Your task to perform on an android device: Add logitech g903 to the cart on costco, then select checkout. Image 0: 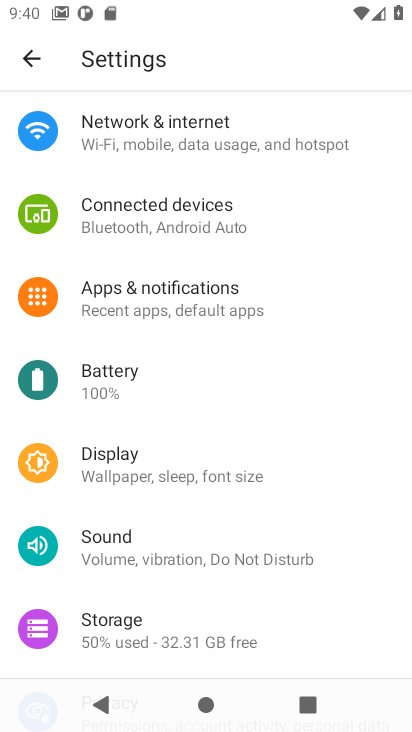
Step 0: press home button
Your task to perform on an android device: Add logitech g903 to the cart on costco, then select checkout. Image 1: 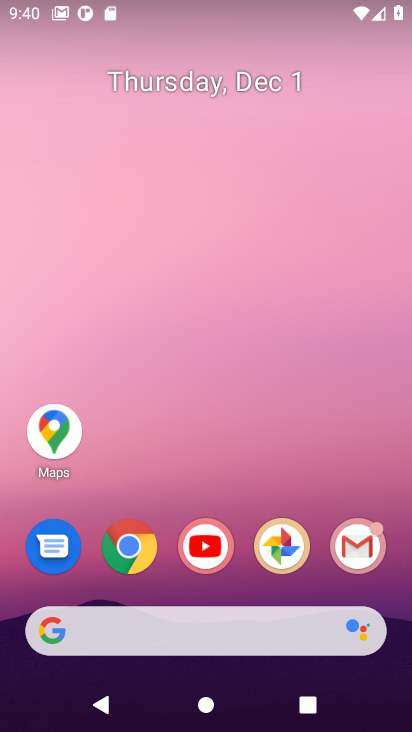
Step 1: click (132, 548)
Your task to perform on an android device: Add logitech g903 to the cart on costco, then select checkout. Image 2: 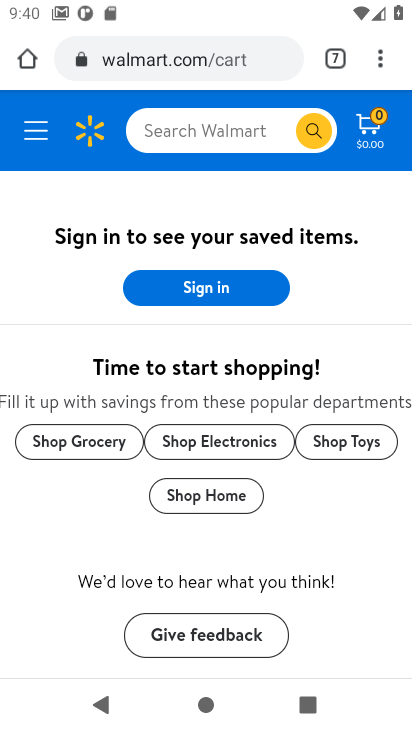
Step 2: click (189, 60)
Your task to perform on an android device: Add logitech g903 to the cart on costco, then select checkout. Image 3: 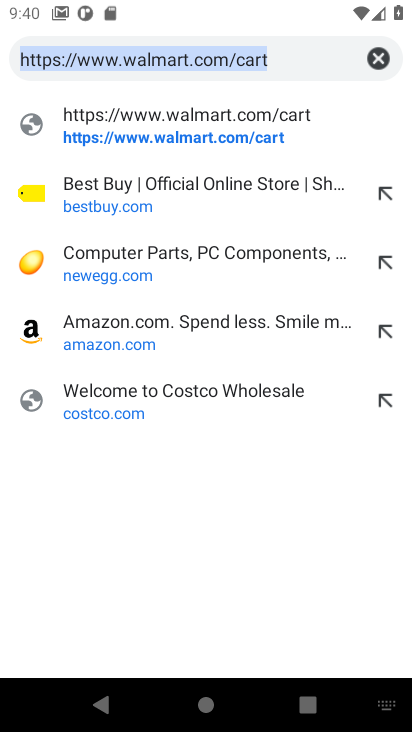
Step 3: click (88, 408)
Your task to perform on an android device: Add logitech g903 to the cart on costco, then select checkout. Image 4: 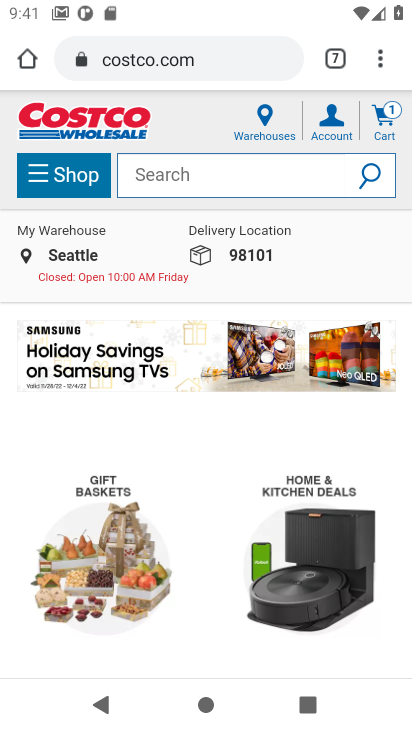
Step 4: click (195, 183)
Your task to perform on an android device: Add logitech g903 to the cart on costco, then select checkout. Image 5: 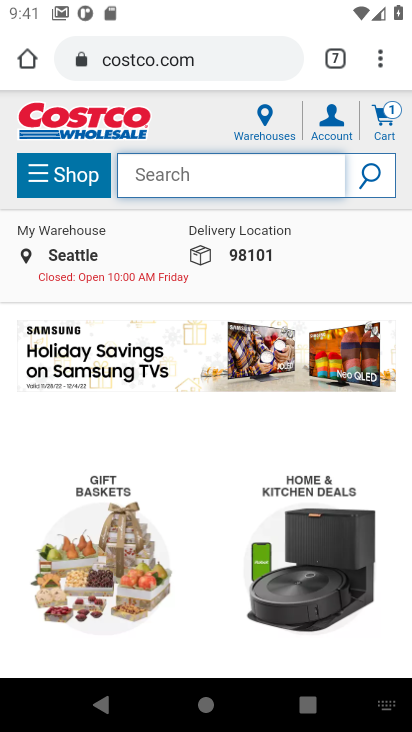
Step 5: type "logitech g903"
Your task to perform on an android device: Add logitech g903 to the cart on costco, then select checkout. Image 6: 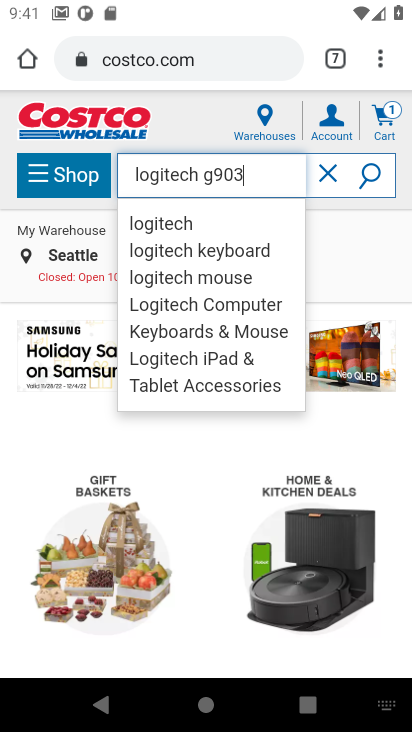
Step 6: click (374, 186)
Your task to perform on an android device: Add logitech g903 to the cart on costco, then select checkout. Image 7: 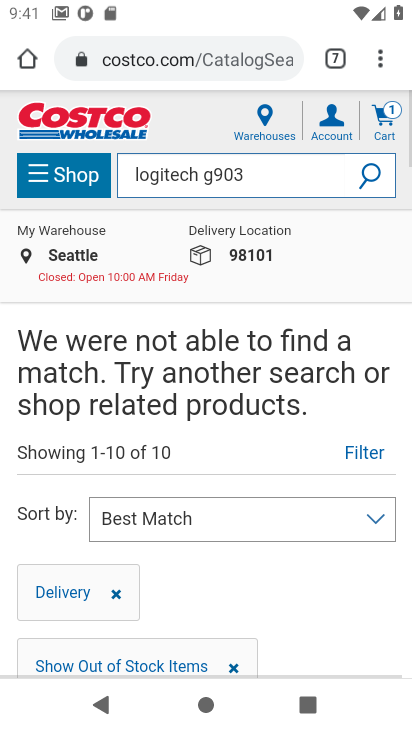
Step 7: task complete